Your task to perform on an android device: add a label to a message in the gmail app Image 0: 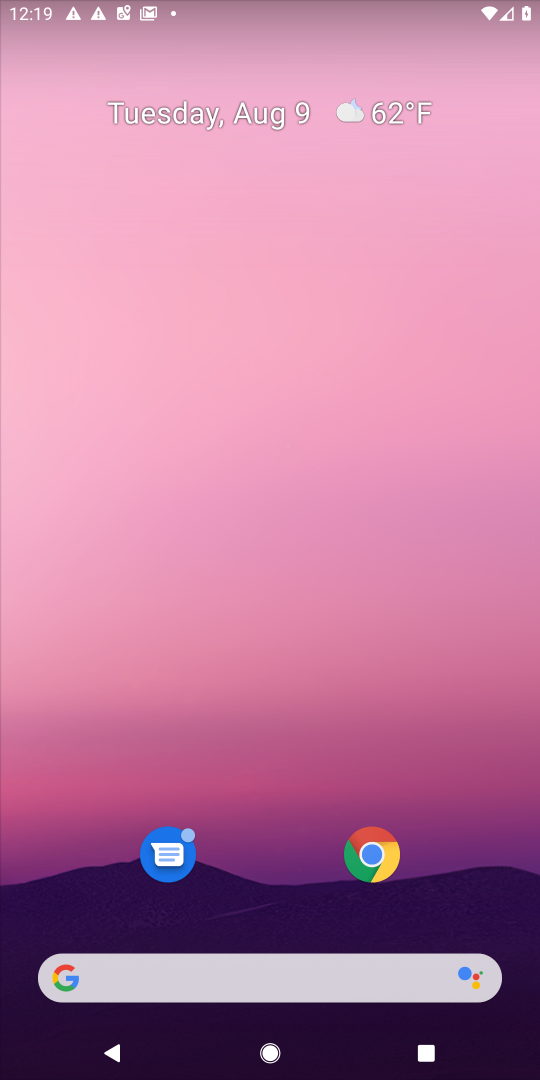
Step 0: press back button
Your task to perform on an android device: add a label to a message in the gmail app Image 1: 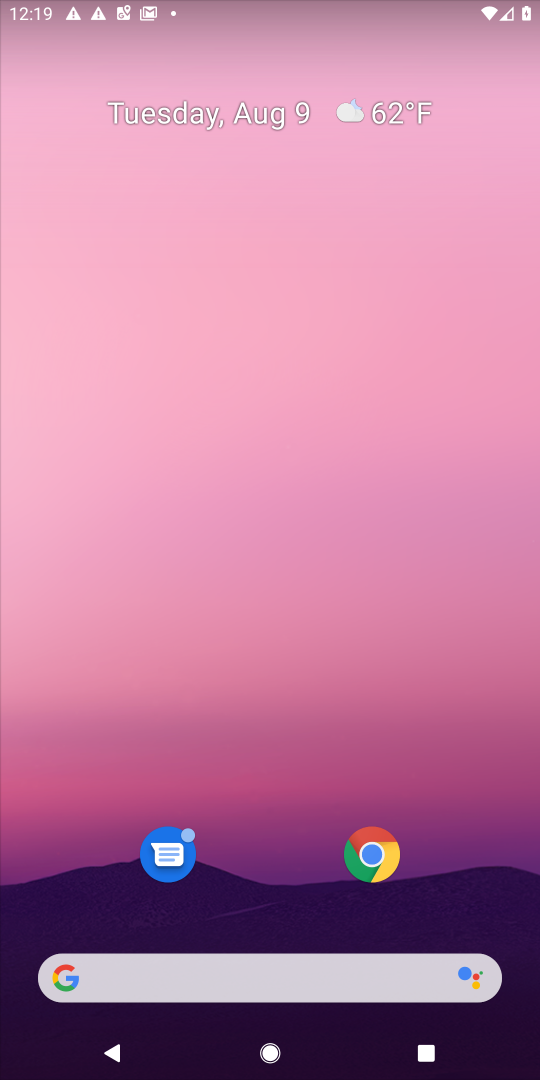
Step 1: drag from (240, 852) to (362, 6)
Your task to perform on an android device: add a label to a message in the gmail app Image 2: 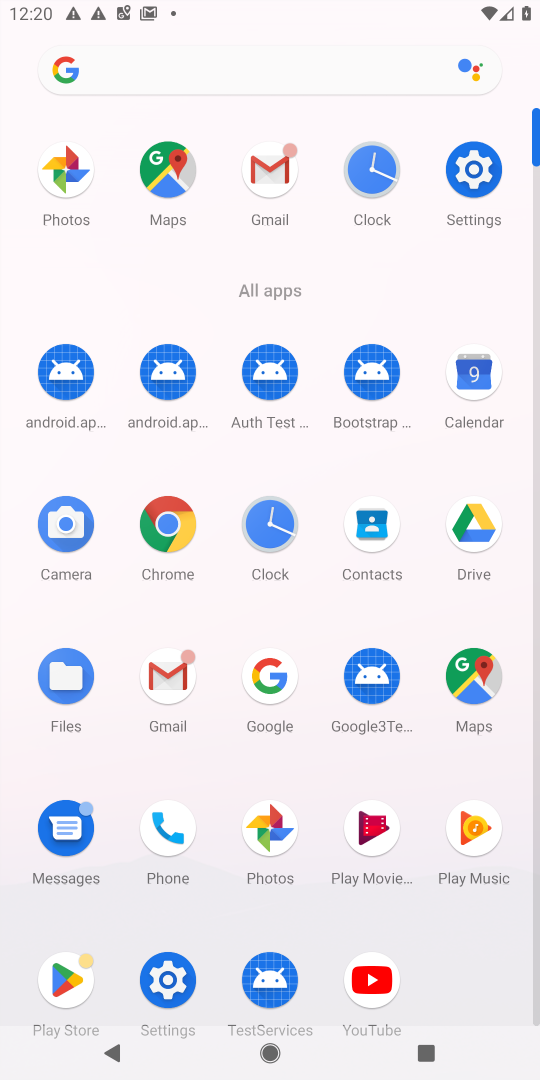
Step 2: click (274, 175)
Your task to perform on an android device: add a label to a message in the gmail app Image 3: 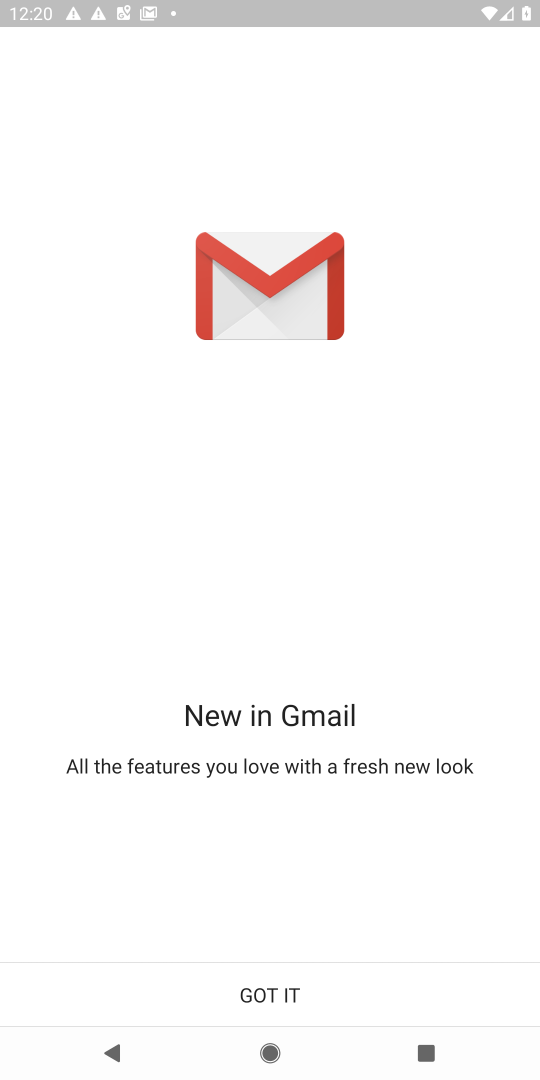
Step 3: click (259, 988)
Your task to perform on an android device: add a label to a message in the gmail app Image 4: 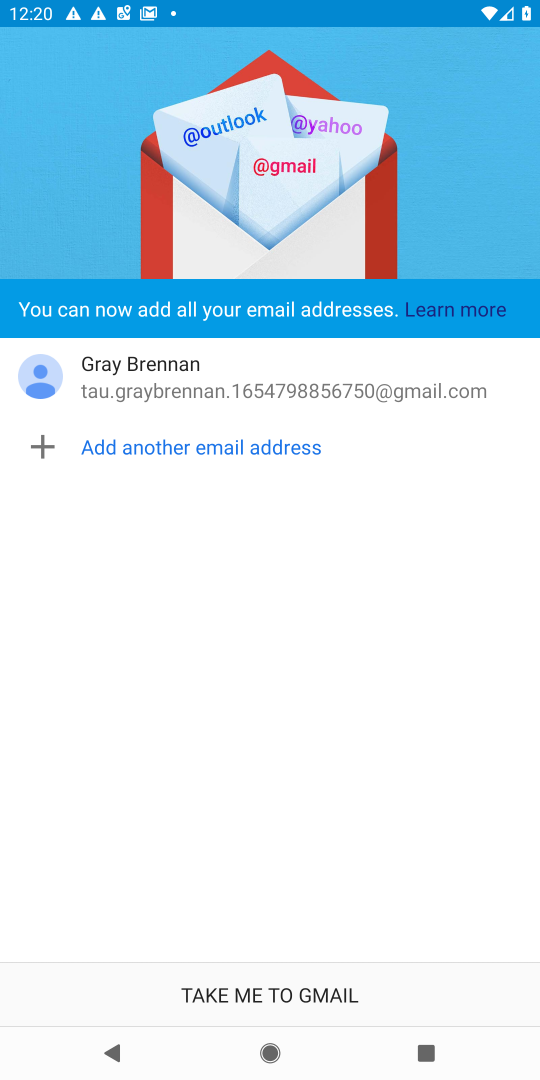
Step 4: click (296, 1000)
Your task to perform on an android device: add a label to a message in the gmail app Image 5: 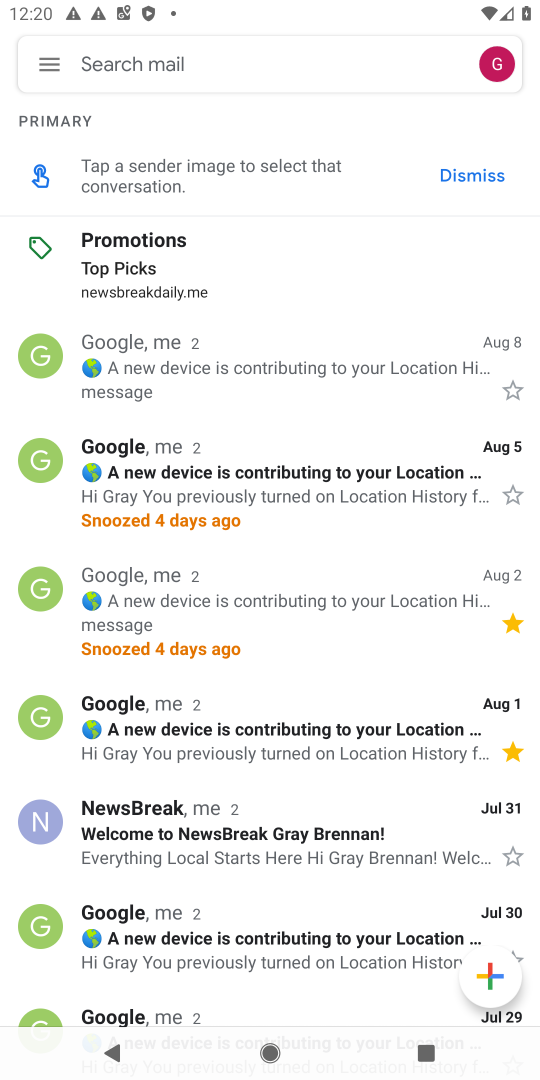
Step 5: click (280, 340)
Your task to perform on an android device: add a label to a message in the gmail app Image 6: 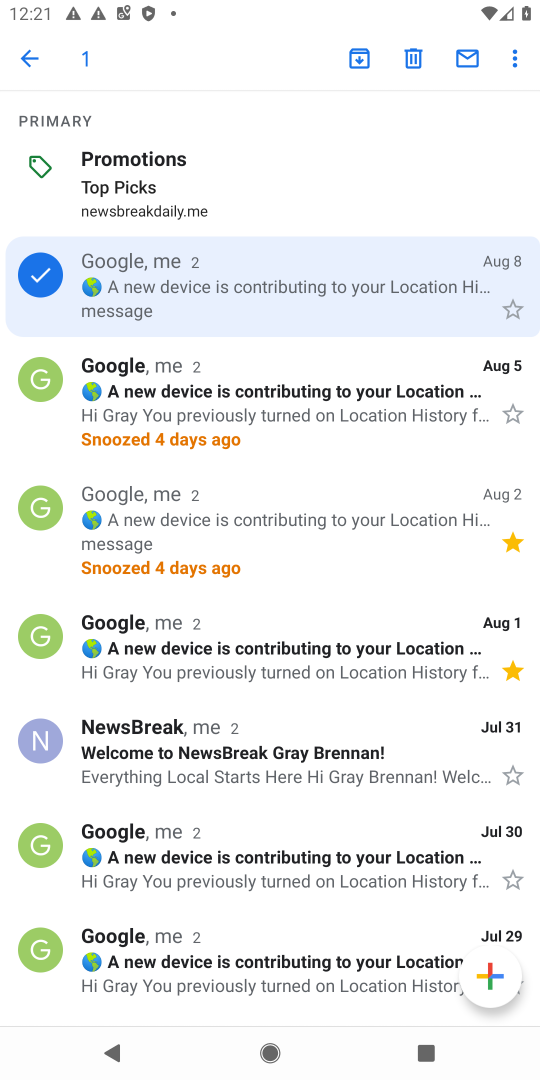
Step 6: click (513, 63)
Your task to perform on an android device: add a label to a message in the gmail app Image 7: 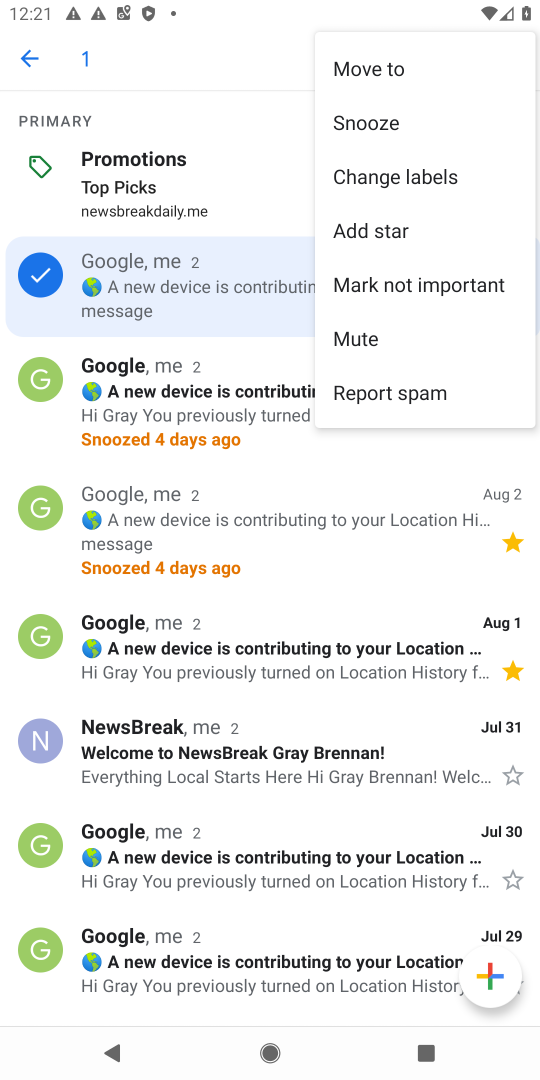
Step 7: click (422, 177)
Your task to perform on an android device: add a label to a message in the gmail app Image 8: 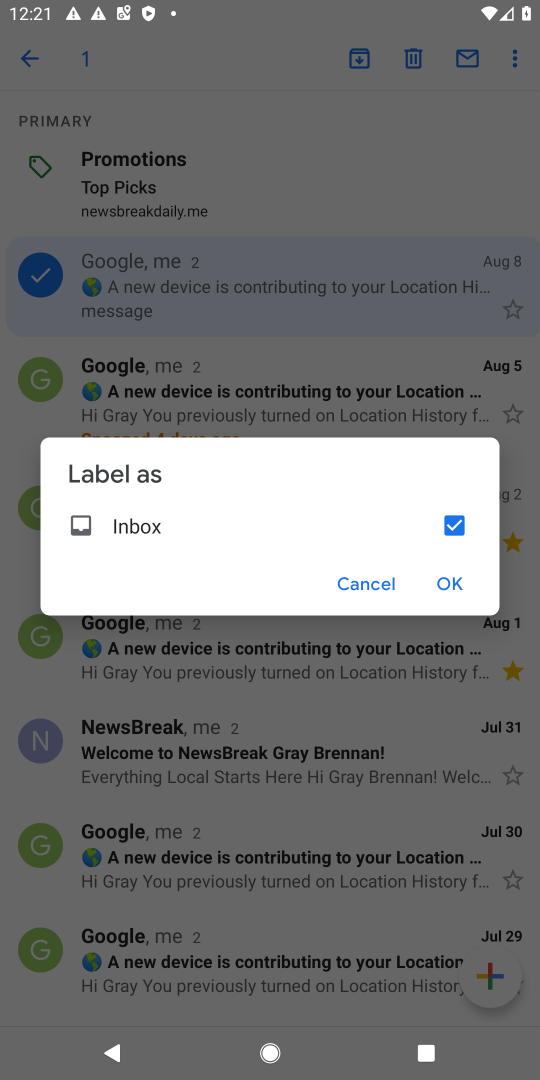
Step 8: click (444, 591)
Your task to perform on an android device: add a label to a message in the gmail app Image 9: 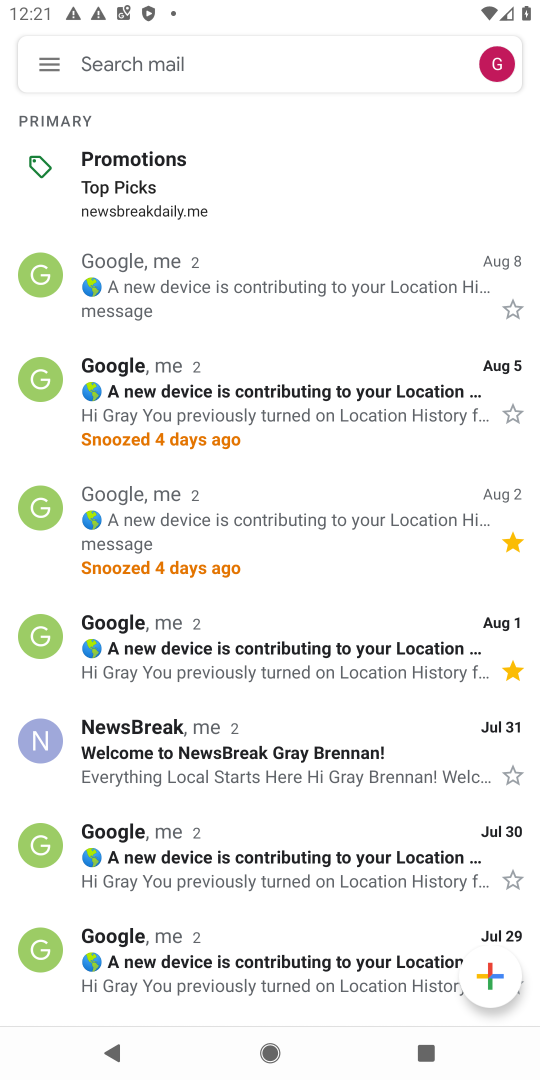
Step 9: task complete